Your task to perform on an android device: search for starred emails in the gmail app Image 0: 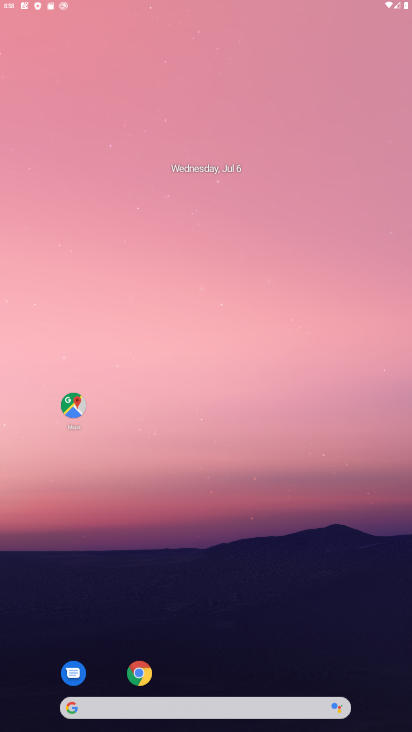
Step 0: click (250, 297)
Your task to perform on an android device: search for starred emails in the gmail app Image 1: 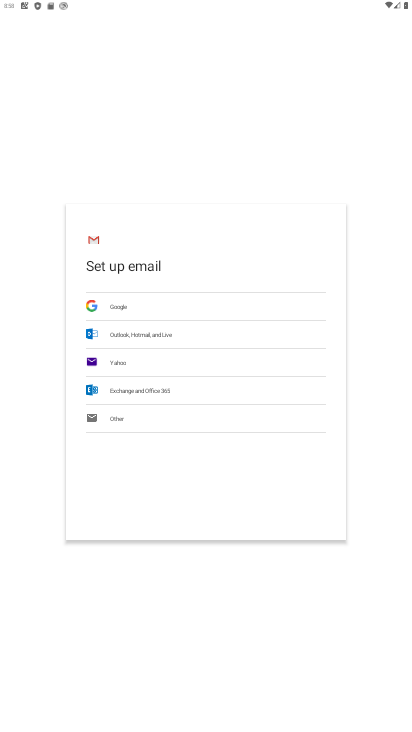
Step 1: press home button
Your task to perform on an android device: search for starred emails in the gmail app Image 2: 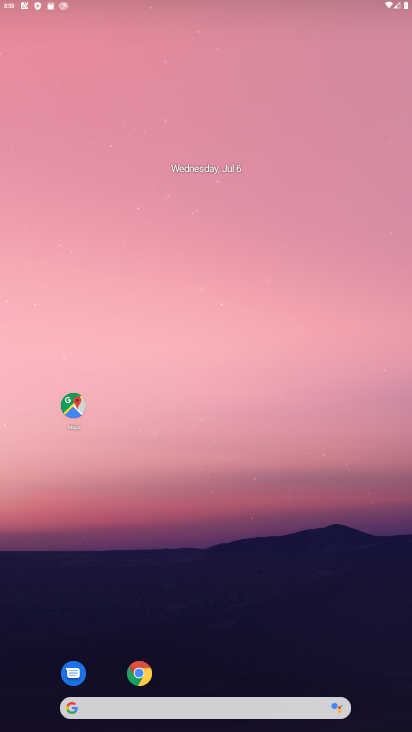
Step 2: drag from (163, 650) to (211, 279)
Your task to perform on an android device: search for starred emails in the gmail app Image 3: 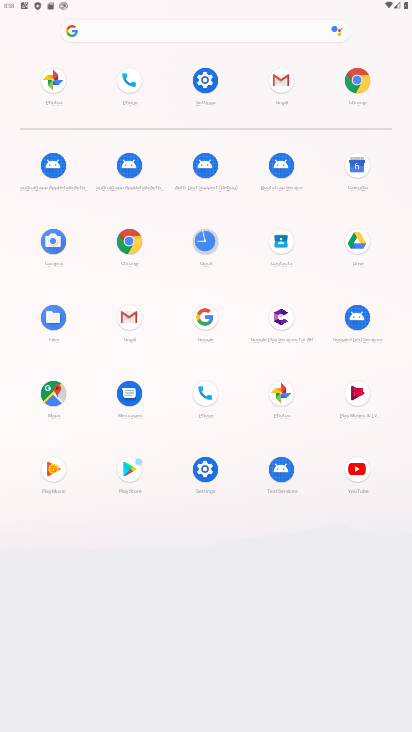
Step 3: click (275, 75)
Your task to perform on an android device: search for starred emails in the gmail app Image 4: 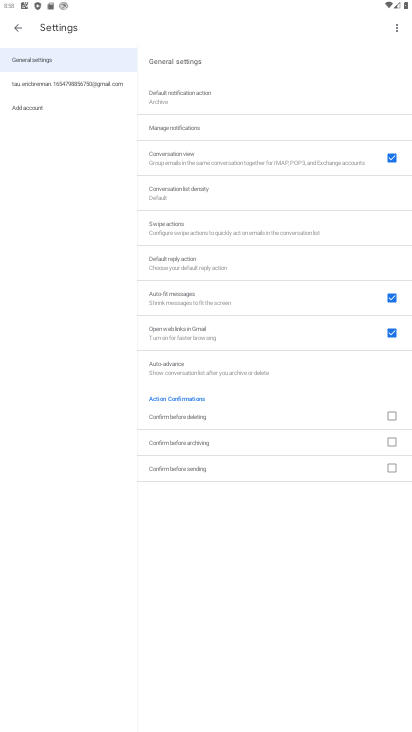
Step 4: click (22, 15)
Your task to perform on an android device: search for starred emails in the gmail app Image 5: 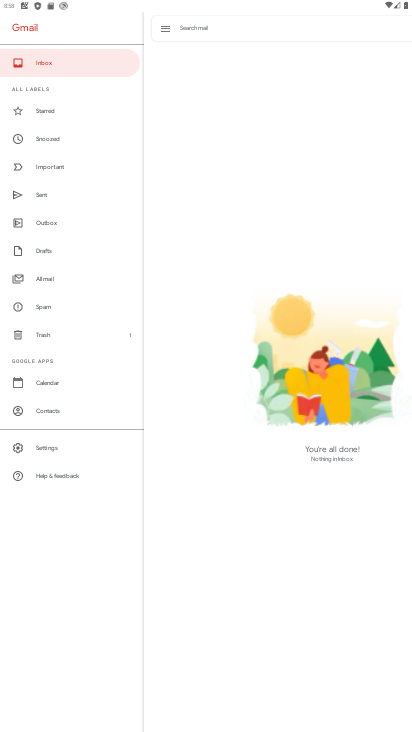
Step 5: click (58, 108)
Your task to perform on an android device: search for starred emails in the gmail app Image 6: 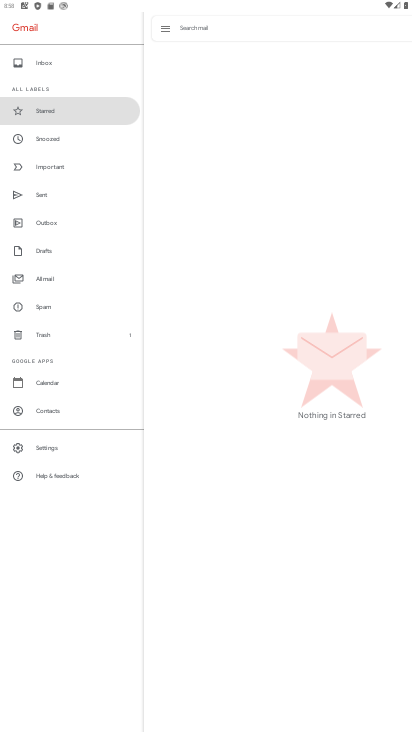
Step 6: task complete